Your task to perform on an android device: What's the weather going to be this weekend? Image 0: 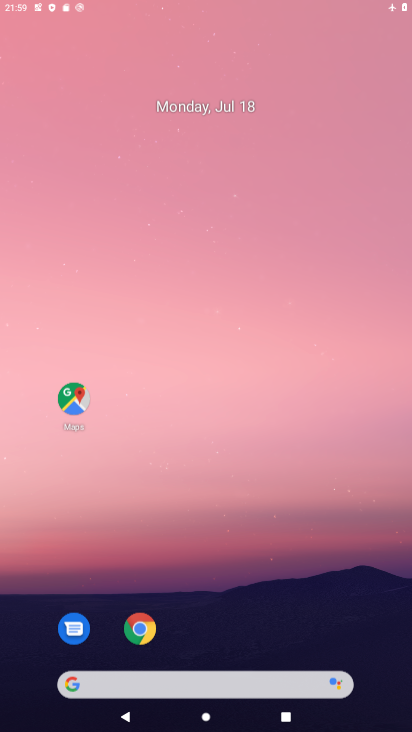
Step 0: drag from (286, 550) to (194, 103)
Your task to perform on an android device: What's the weather going to be this weekend? Image 1: 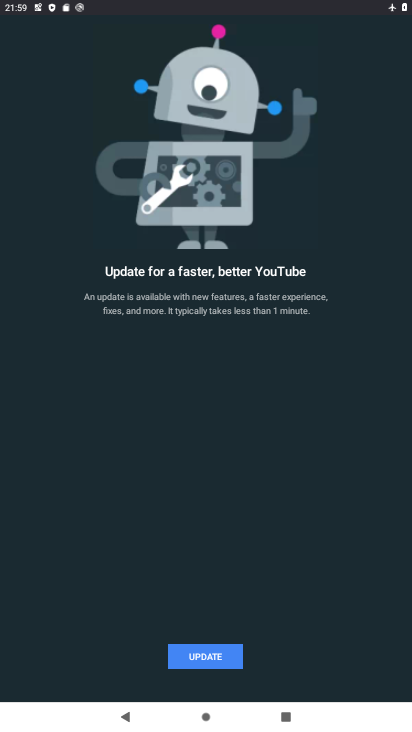
Step 1: press home button
Your task to perform on an android device: What's the weather going to be this weekend? Image 2: 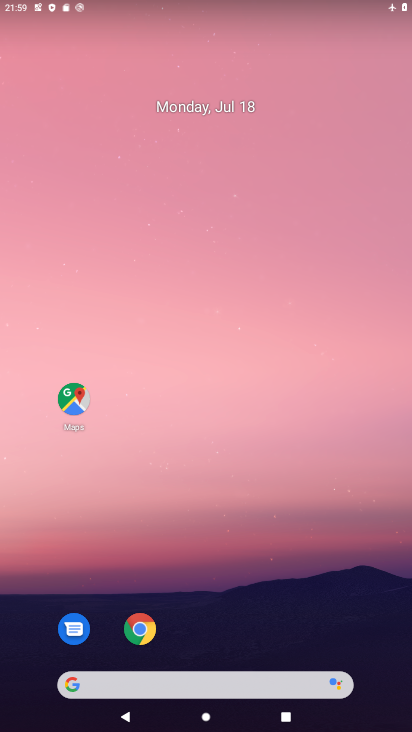
Step 2: drag from (342, 574) to (235, 148)
Your task to perform on an android device: What's the weather going to be this weekend? Image 3: 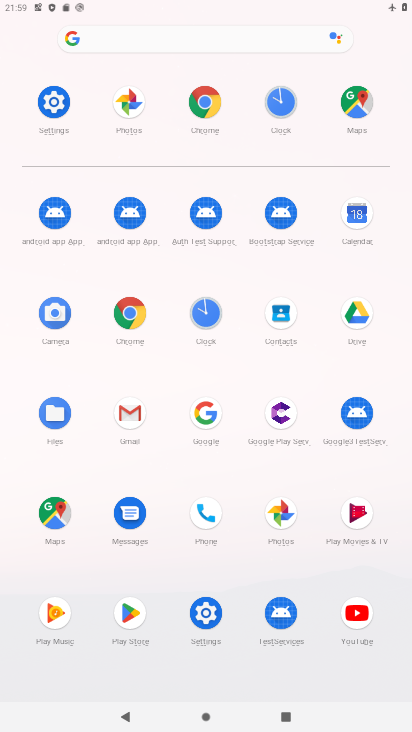
Step 3: click (200, 103)
Your task to perform on an android device: What's the weather going to be this weekend? Image 4: 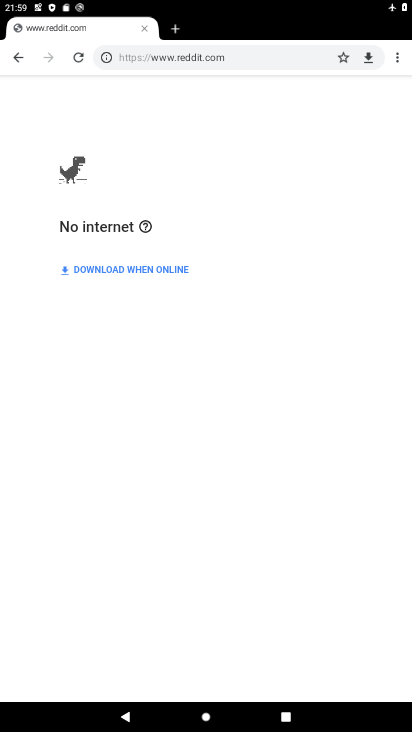
Step 4: click (208, 57)
Your task to perform on an android device: What's the weather going to be this weekend? Image 5: 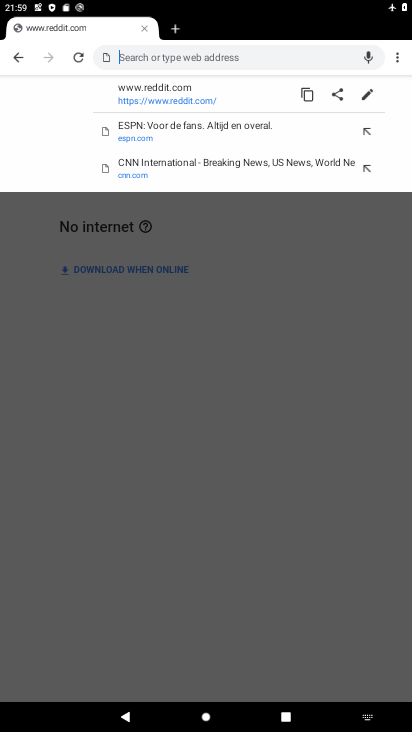
Step 5: type "weather"
Your task to perform on an android device: What's the weather going to be this weekend? Image 6: 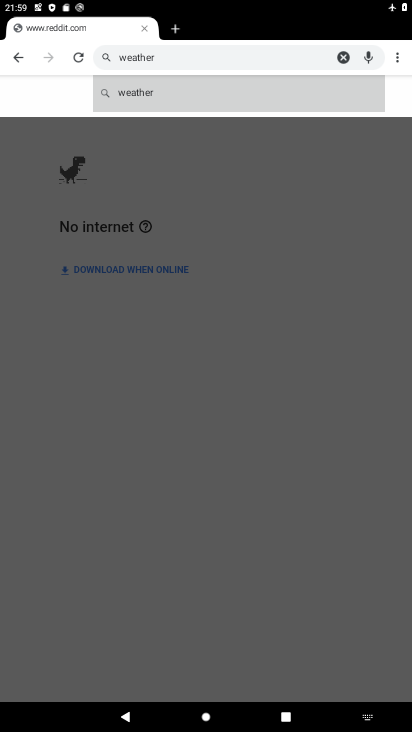
Step 6: click (209, 83)
Your task to perform on an android device: What's the weather going to be this weekend? Image 7: 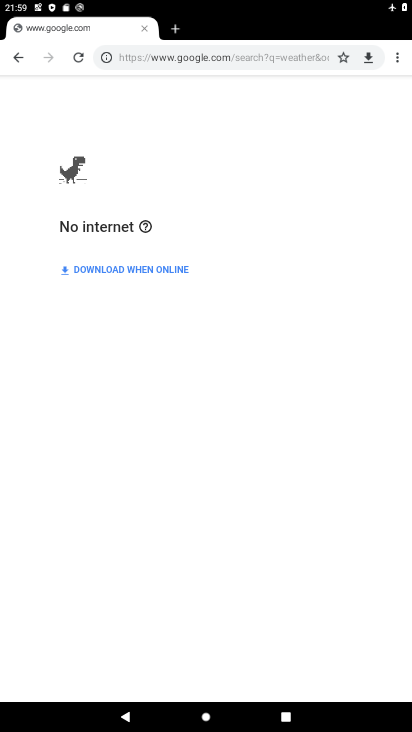
Step 7: task complete